Your task to perform on an android device: delete a single message in the gmail app Image 0: 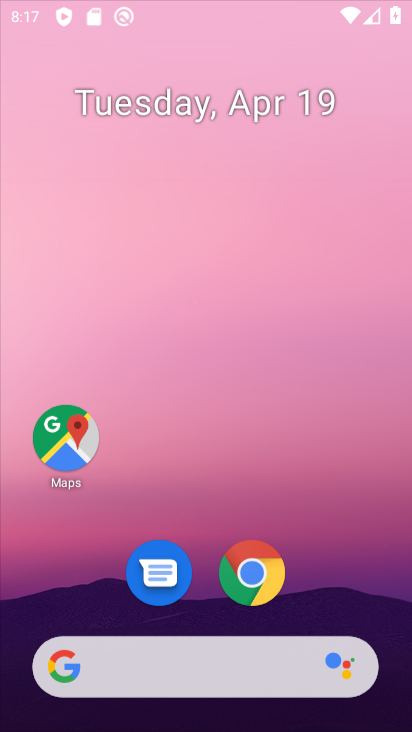
Step 0: drag from (286, 157) to (236, 36)
Your task to perform on an android device: delete a single message in the gmail app Image 1: 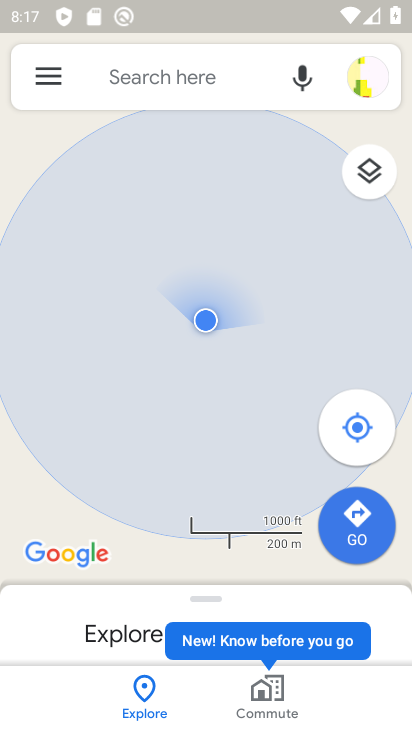
Step 1: press home button
Your task to perform on an android device: delete a single message in the gmail app Image 2: 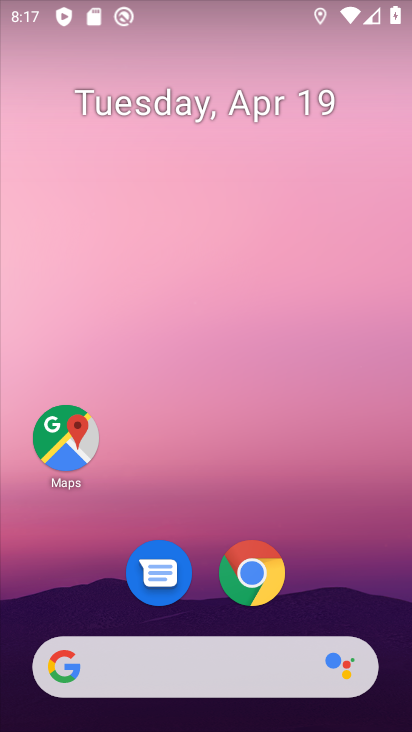
Step 2: drag from (303, 543) to (261, 160)
Your task to perform on an android device: delete a single message in the gmail app Image 3: 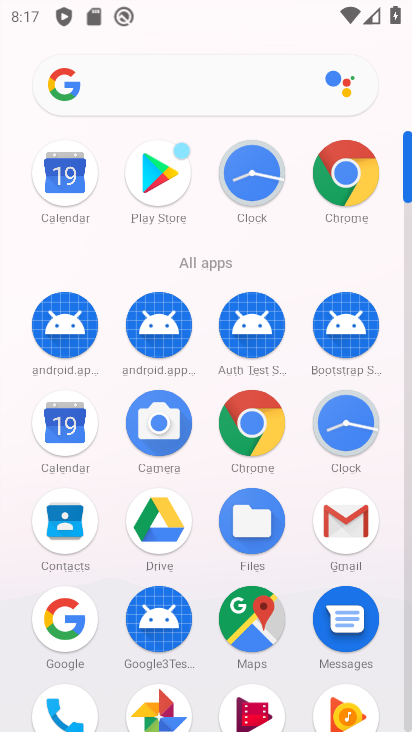
Step 3: click (349, 522)
Your task to perform on an android device: delete a single message in the gmail app Image 4: 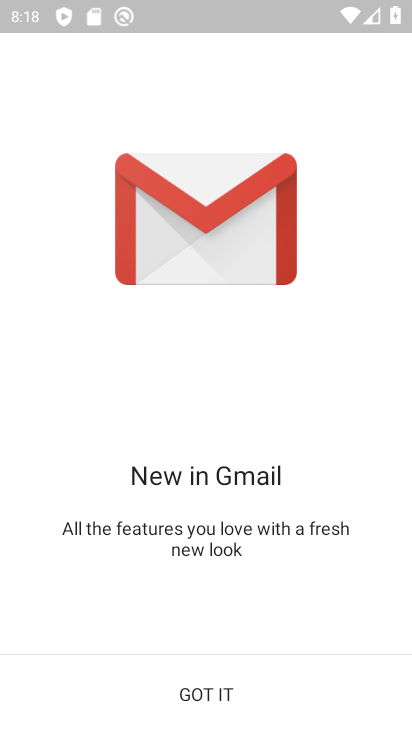
Step 4: click (201, 696)
Your task to perform on an android device: delete a single message in the gmail app Image 5: 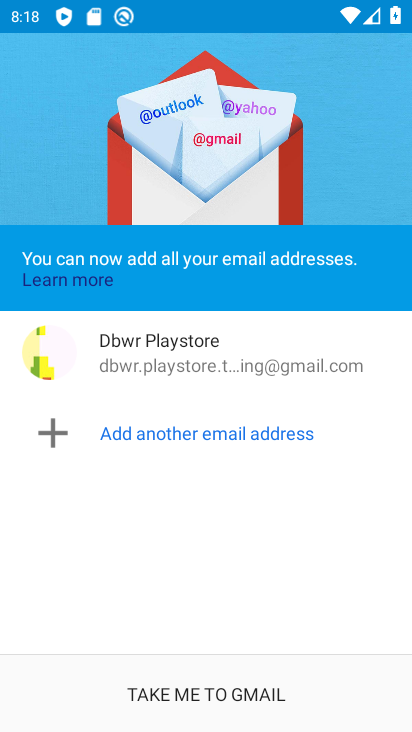
Step 5: click (217, 686)
Your task to perform on an android device: delete a single message in the gmail app Image 6: 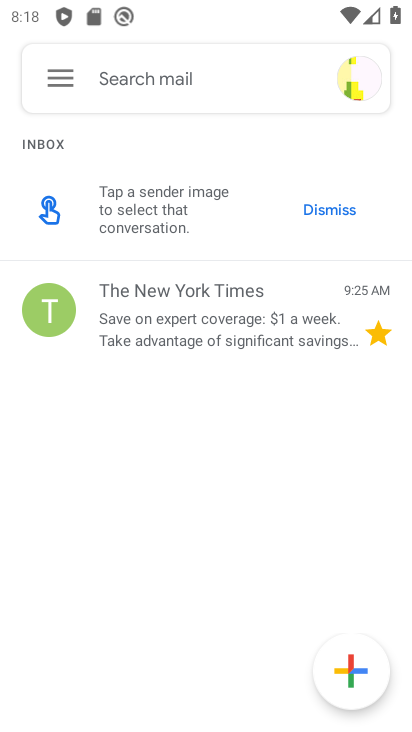
Step 6: click (60, 301)
Your task to perform on an android device: delete a single message in the gmail app Image 7: 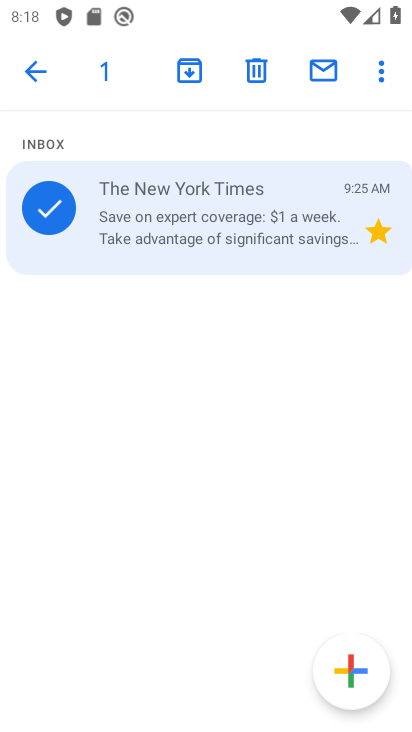
Step 7: click (252, 69)
Your task to perform on an android device: delete a single message in the gmail app Image 8: 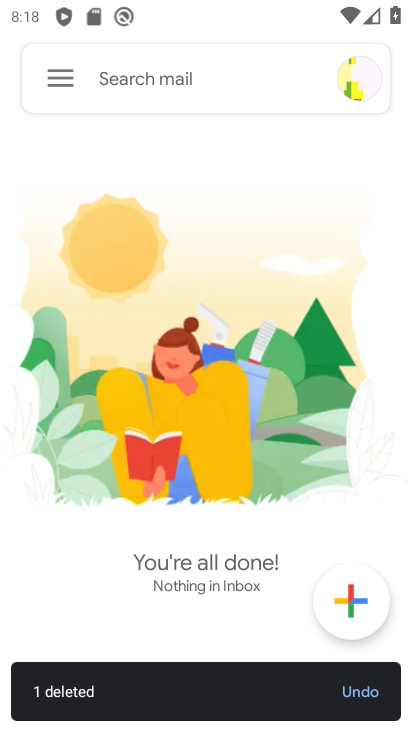
Step 8: task complete